Your task to perform on an android device: What's the weather going to be tomorrow? Image 0: 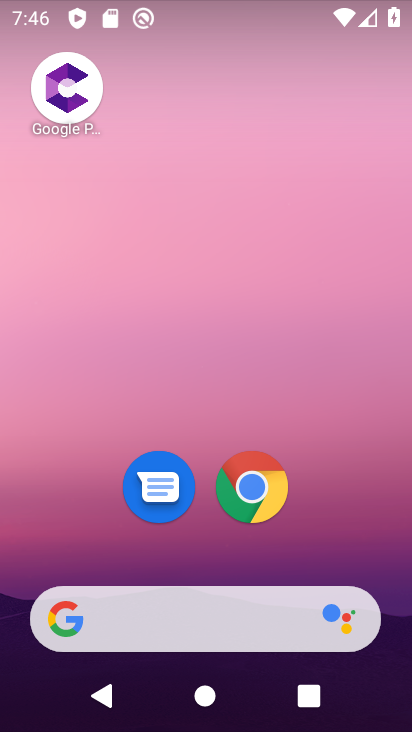
Step 0: click (197, 633)
Your task to perform on an android device: What's the weather going to be tomorrow? Image 1: 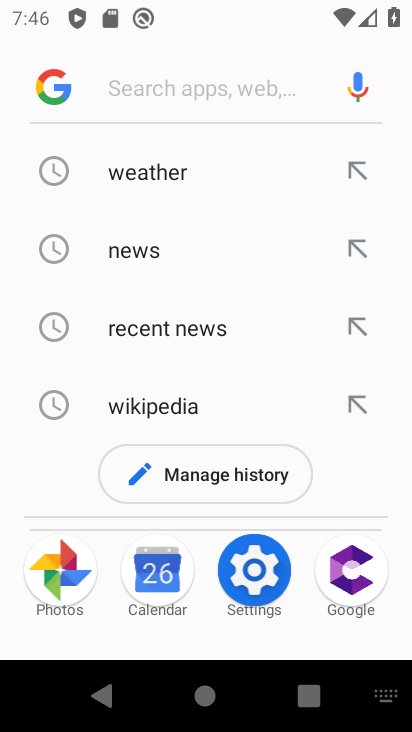
Step 1: type "weather tomorrow"
Your task to perform on an android device: What's the weather going to be tomorrow? Image 2: 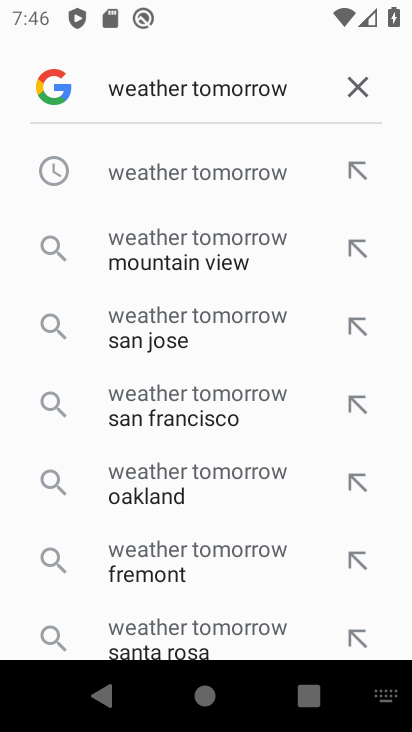
Step 2: click (210, 176)
Your task to perform on an android device: What's the weather going to be tomorrow? Image 3: 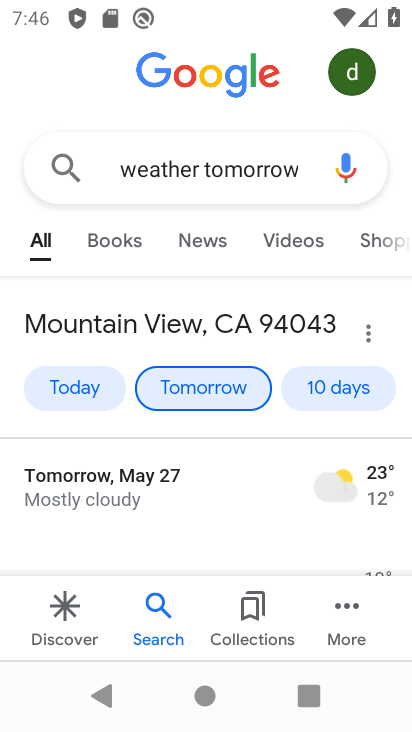
Step 3: task complete